Your task to perform on an android device: Add "bose soundsport free" to the cart on target.com Image 0: 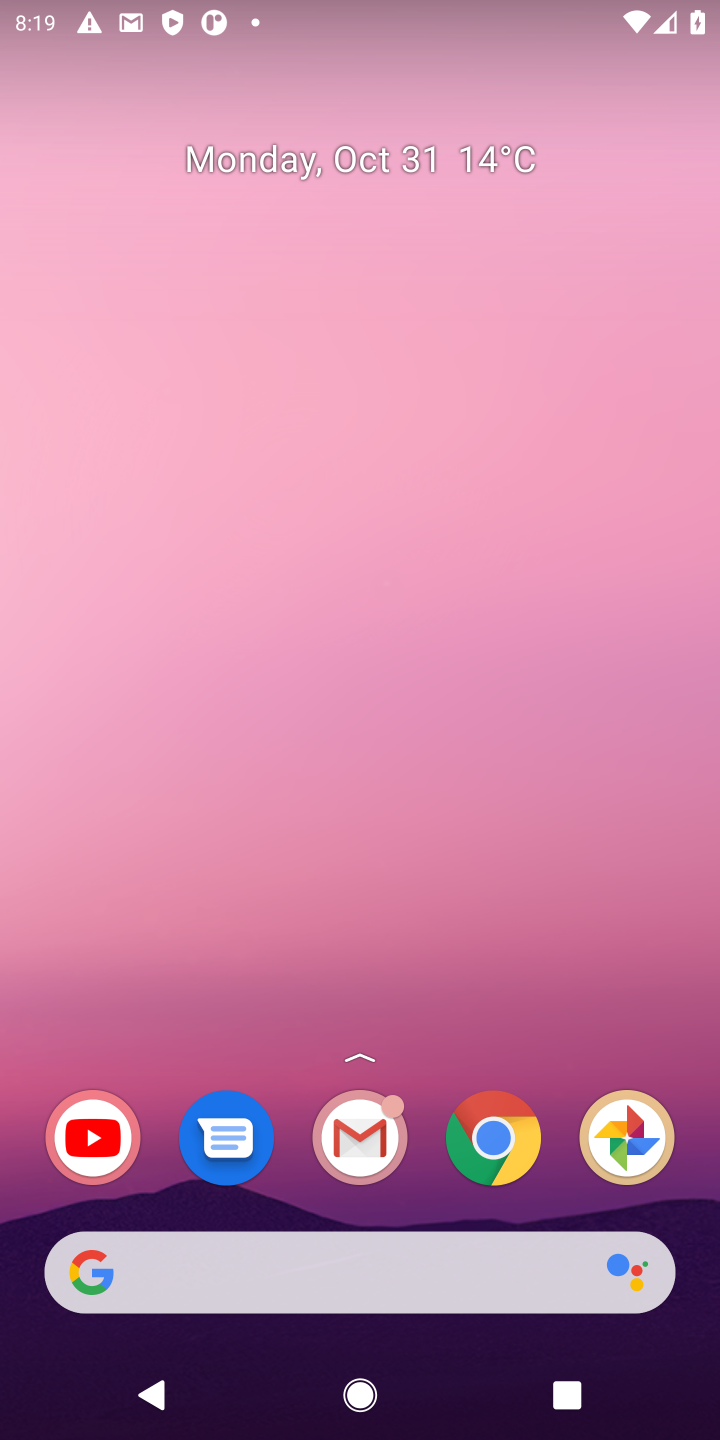
Step 0: click (508, 1166)
Your task to perform on an android device: Add "bose soundsport free" to the cart on target.com Image 1: 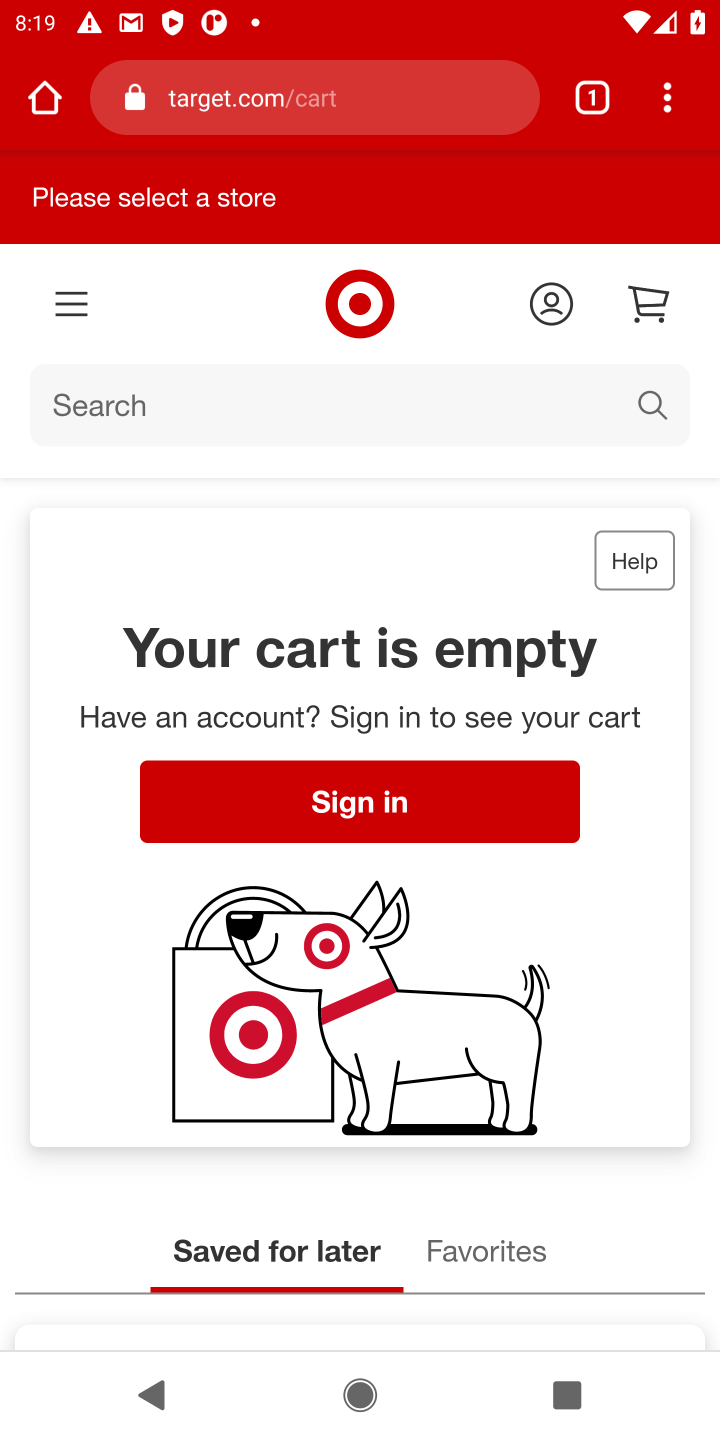
Step 1: click (205, 115)
Your task to perform on an android device: Add "bose soundsport free" to the cart on target.com Image 2: 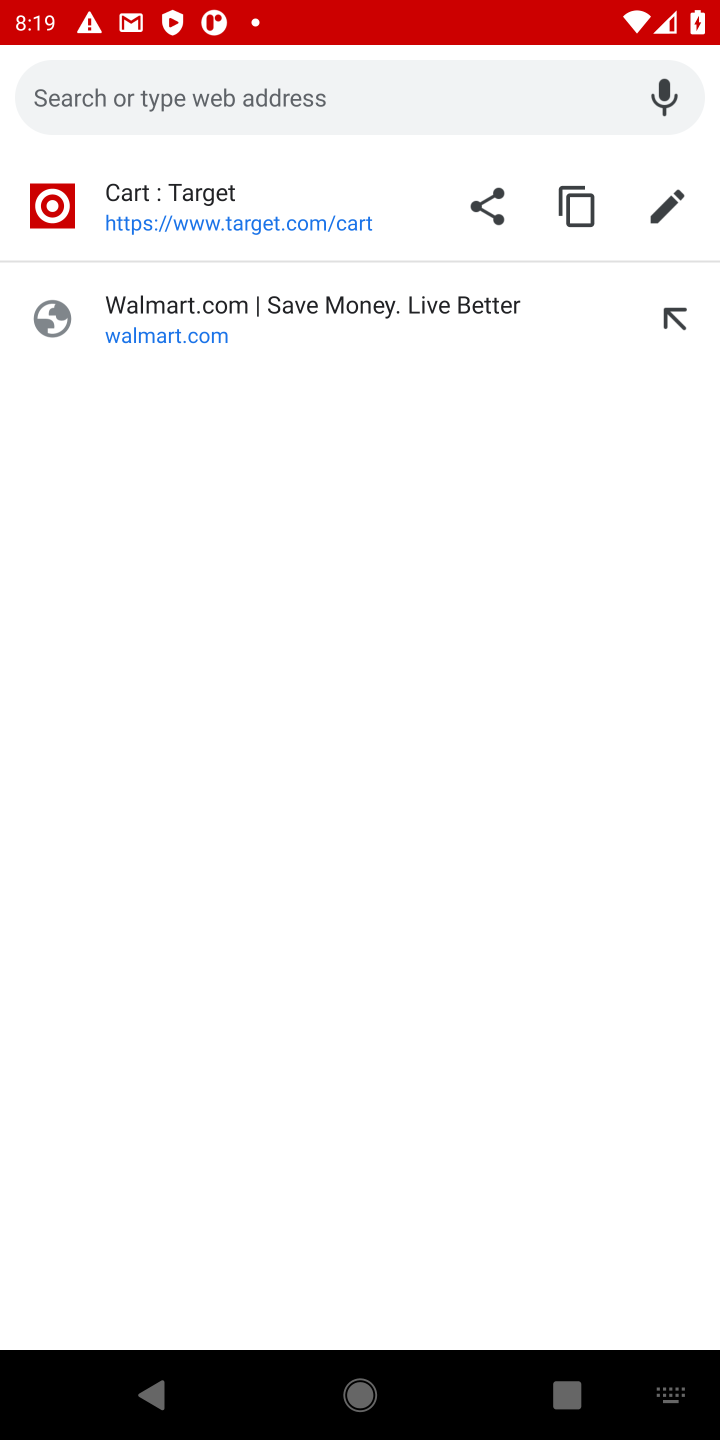
Step 2: type "target.com"
Your task to perform on an android device: Add "bose soundsport free" to the cart on target.com Image 3: 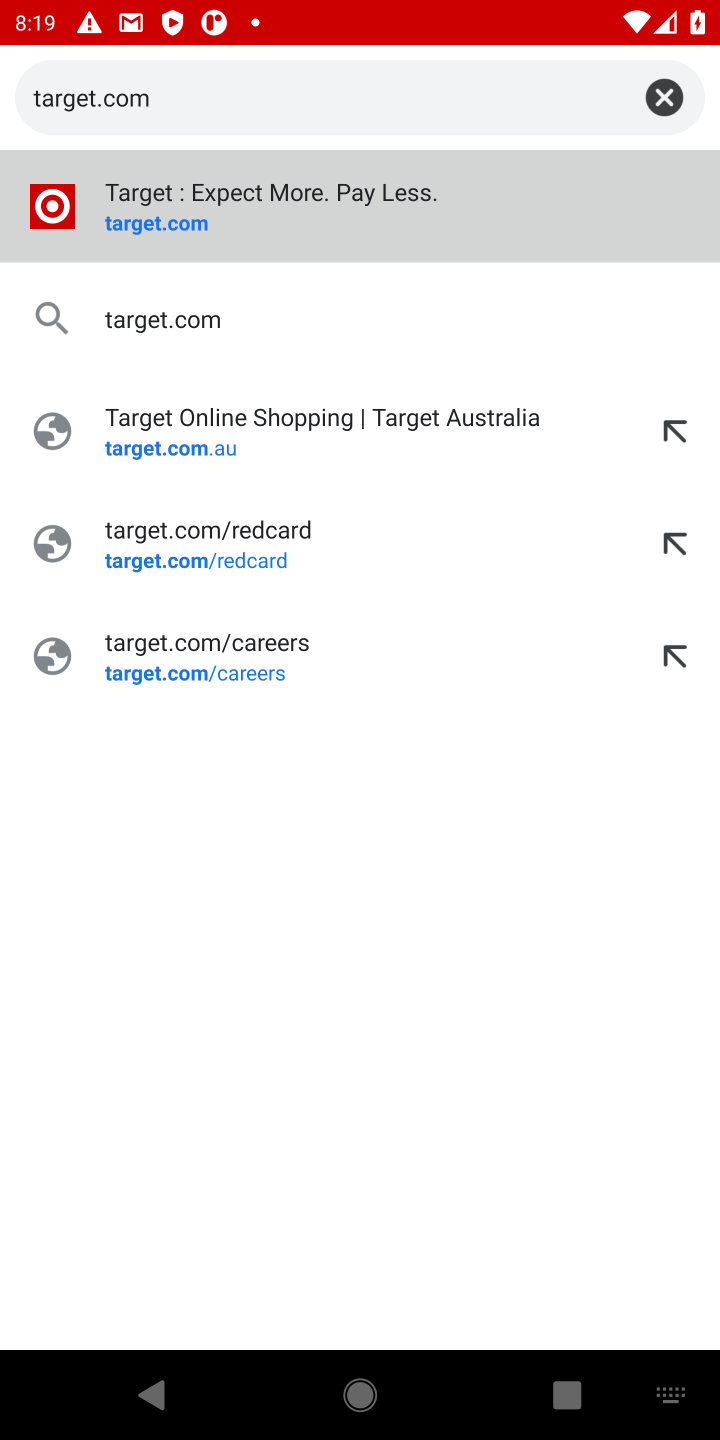
Step 3: click (176, 221)
Your task to perform on an android device: Add "bose soundsport free" to the cart on target.com Image 4: 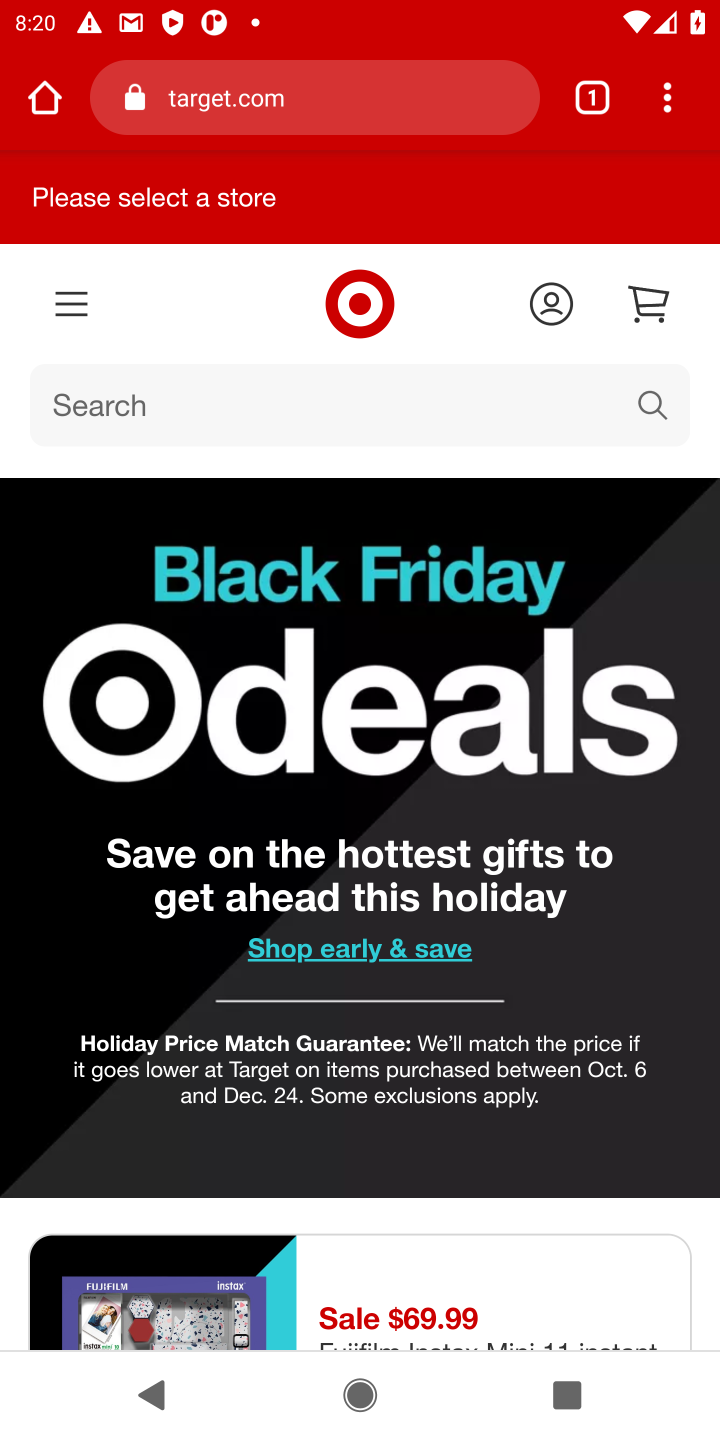
Step 4: click (644, 403)
Your task to perform on an android device: Add "bose soundsport free" to the cart on target.com Image 5: 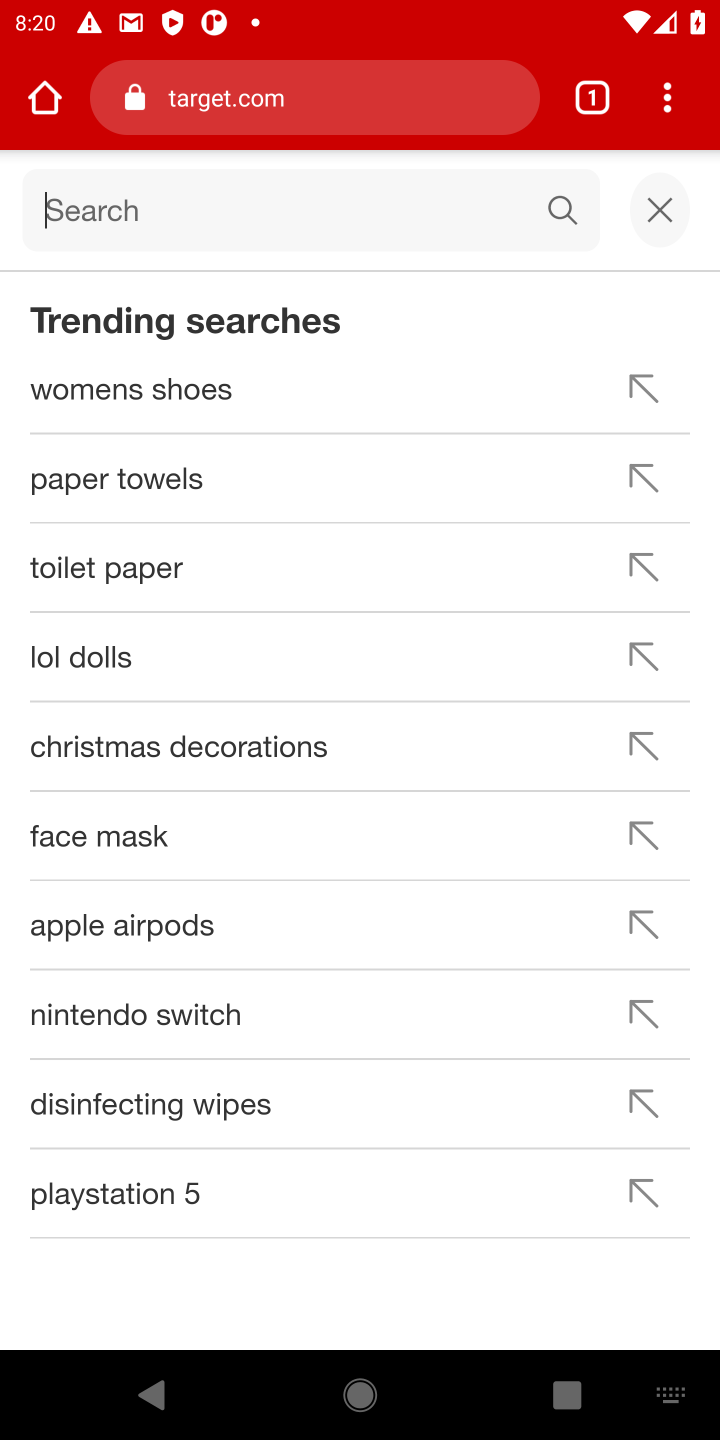
Step 5: type "bose soundsport free"
Your task to perform on an android device: Add "bose soundsport free" to the cart on target.com Image 6: 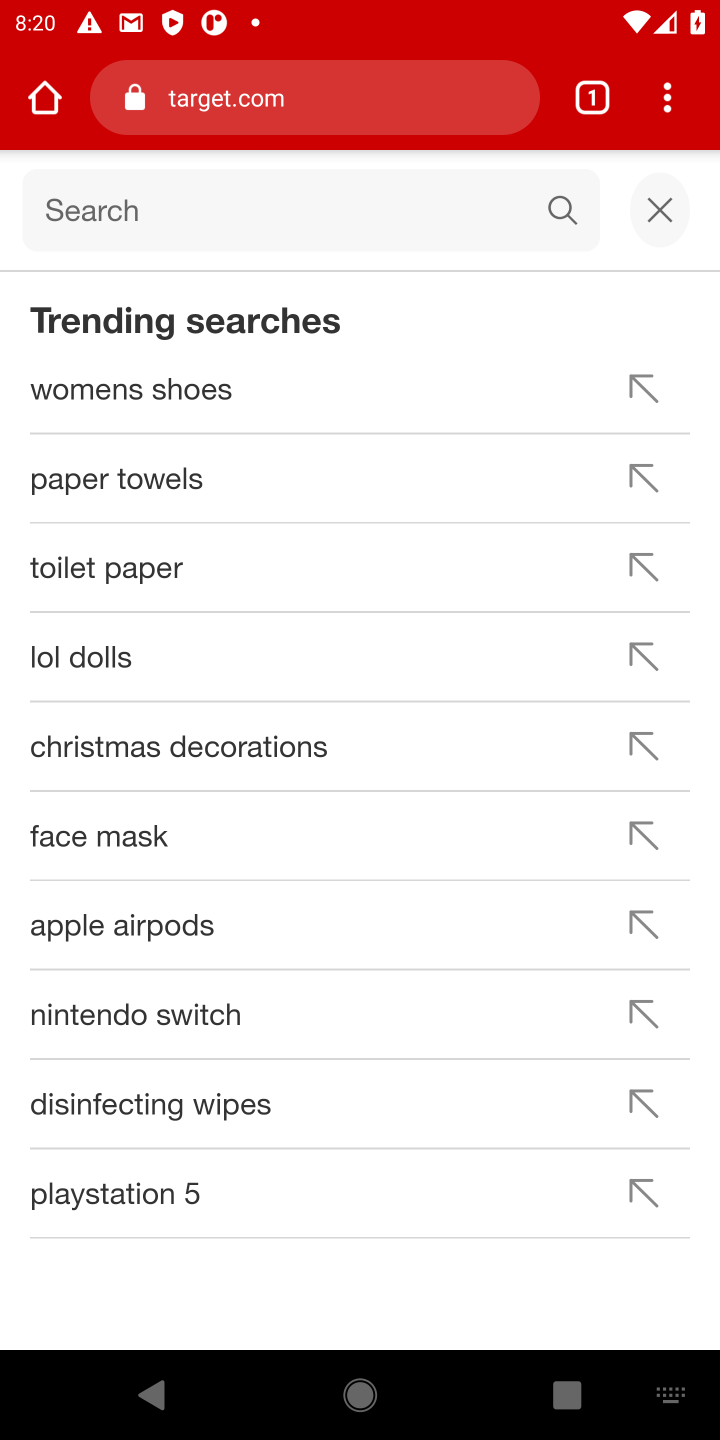
Step 6: type ""
Your task to perform on an android device: Add "bose soundsport free" to the cart on target.com Image 7: 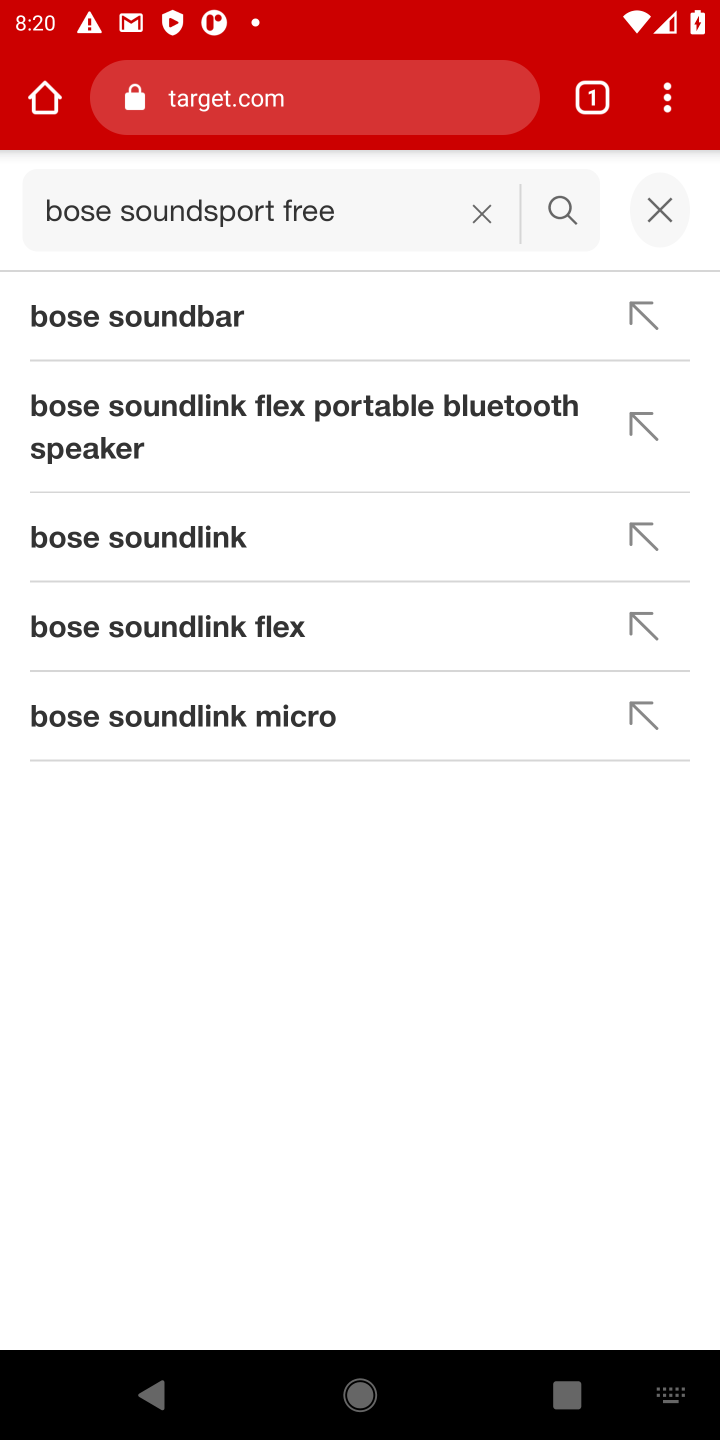
Step 7: click (171, 313)
Your task to perform on an android device: Add "bose soundsport free" to the cart on target.com Image 8: 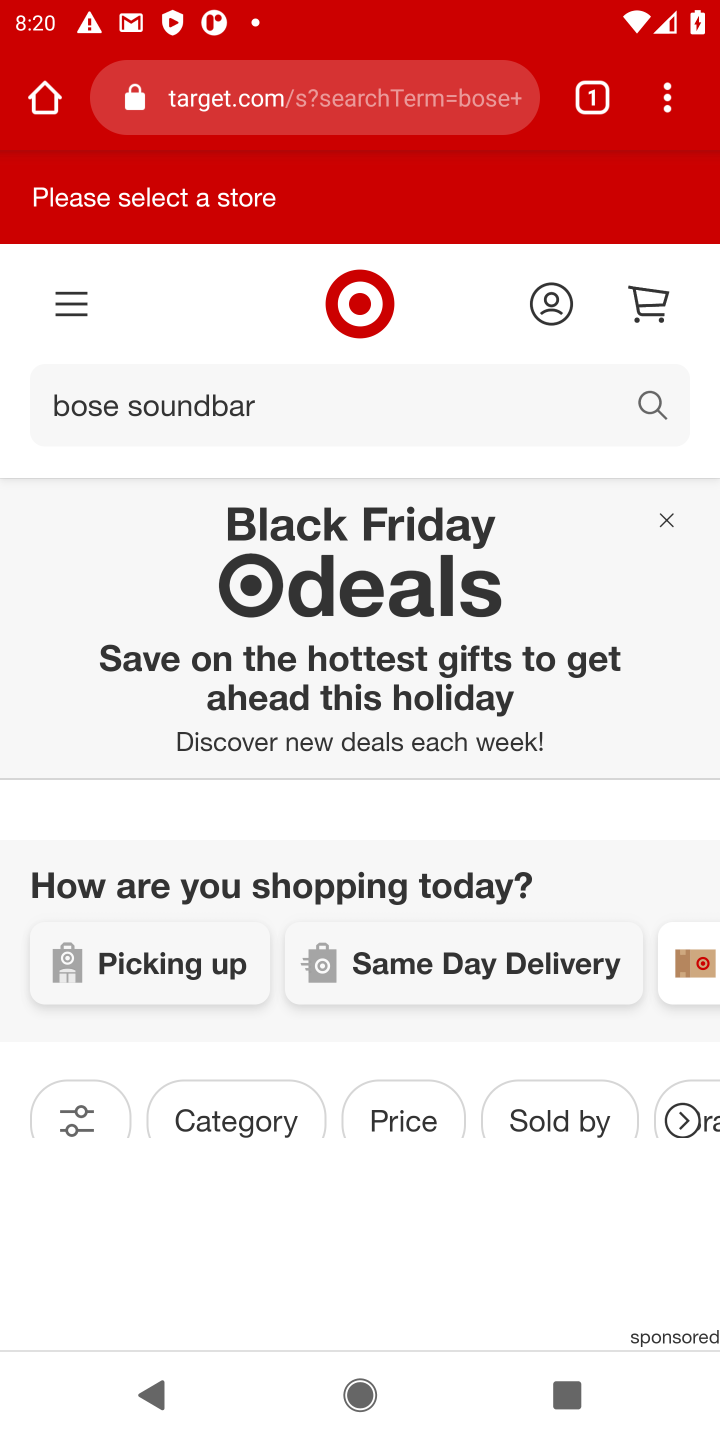
Step 8: click (646, 399)
Your task to perform on an android device: Add "bose soundsport free" to the cart on target.com Image 9: 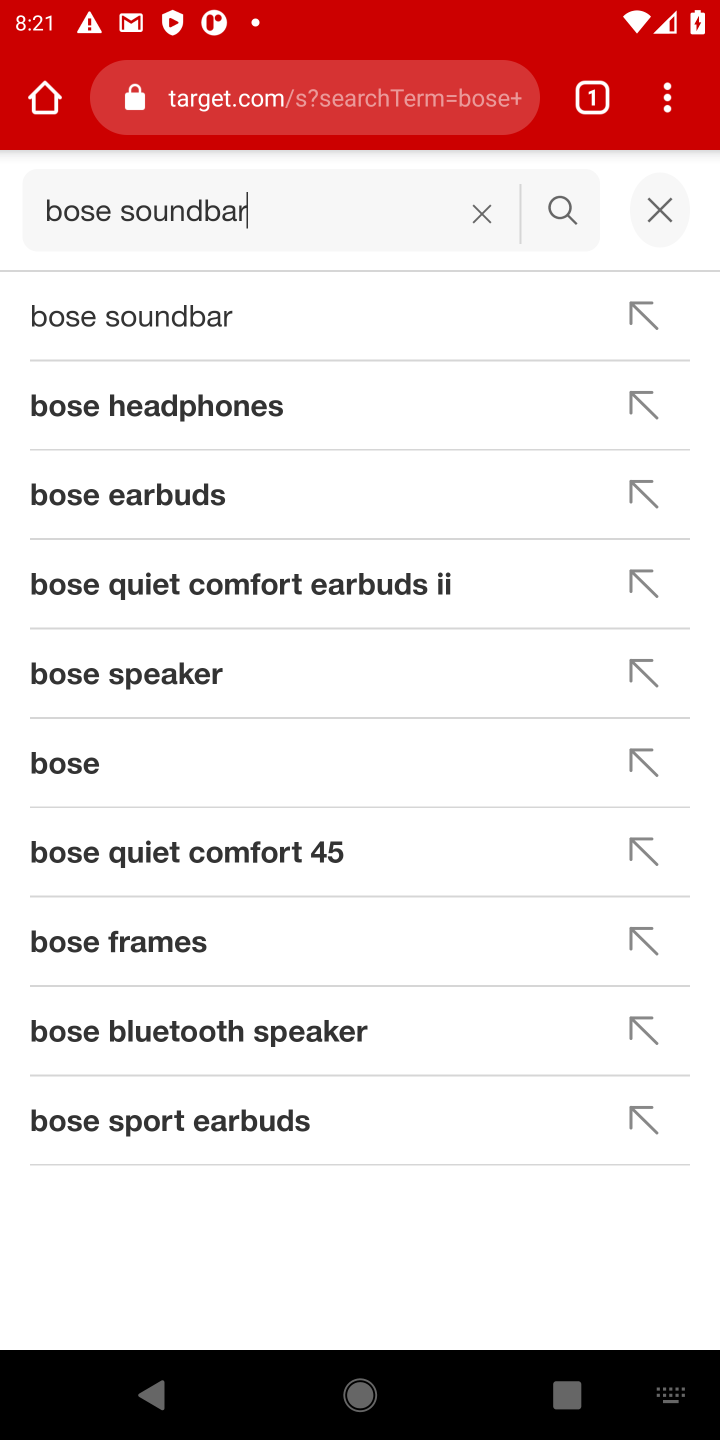
Step 9: click (487, 213)
Your task to perform on an android device: Add "bose soundsport free" to the cart on target.com Image 10: 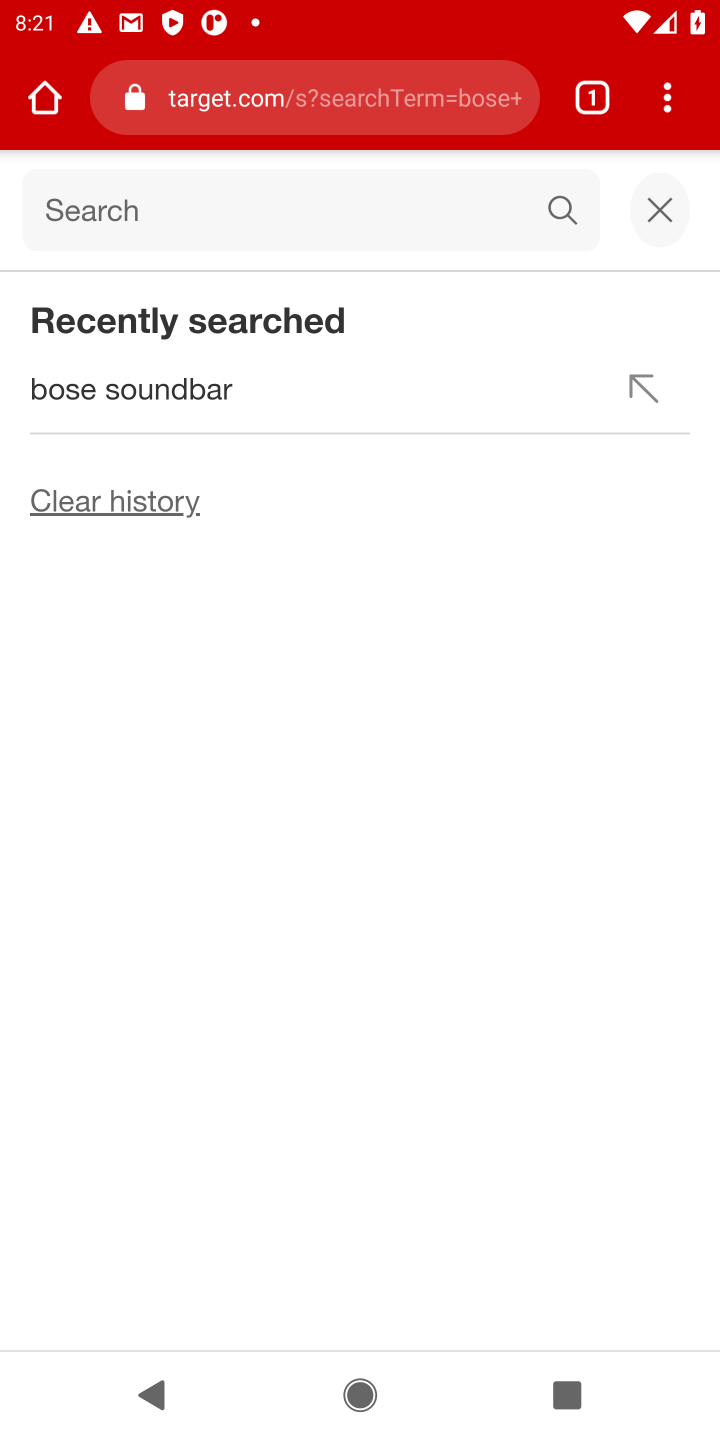
Step 10: click (146, 203)
Your task to perform on an android device: Add "bose soundsport free" to the cart on target.com Image 11: 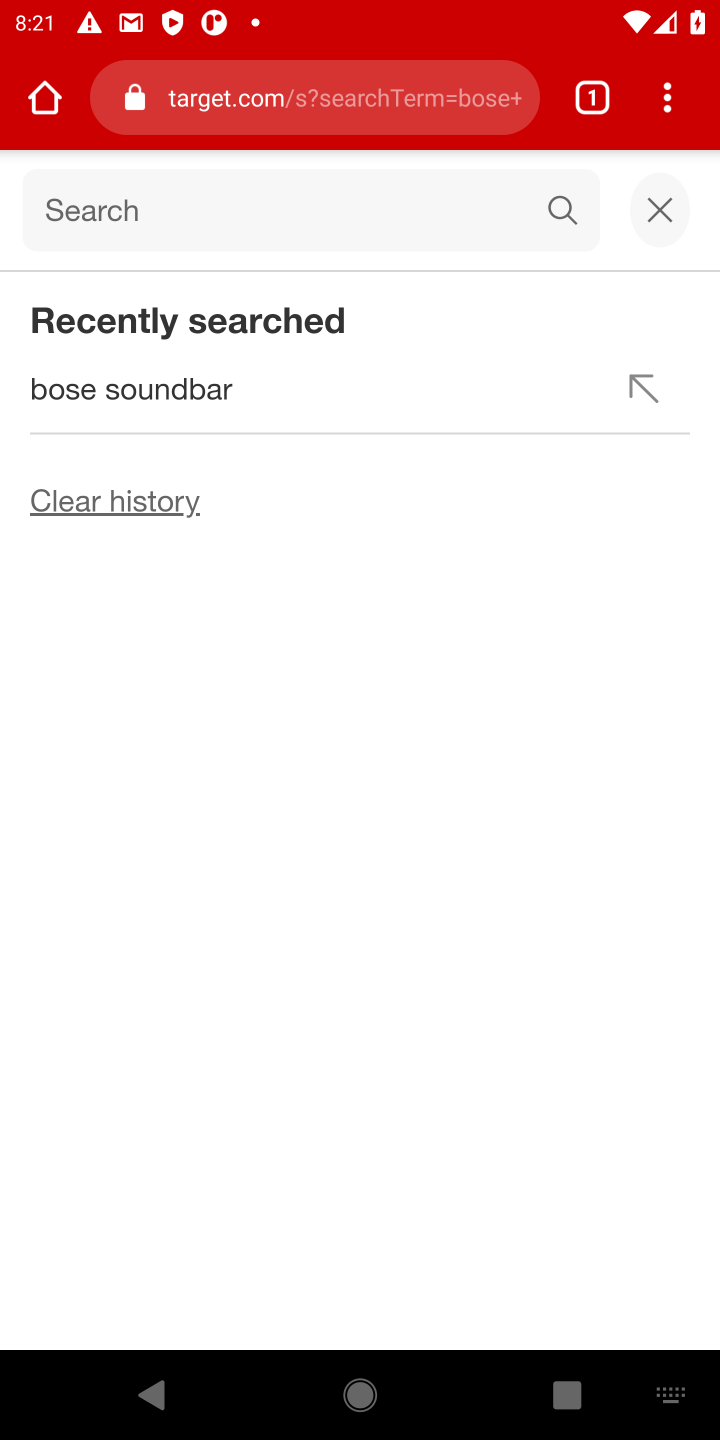
Step 11: type "bose soundsport free"
Your task to perform on an android device: Add "bose soundsport free" to the cart on target.com Image 12: 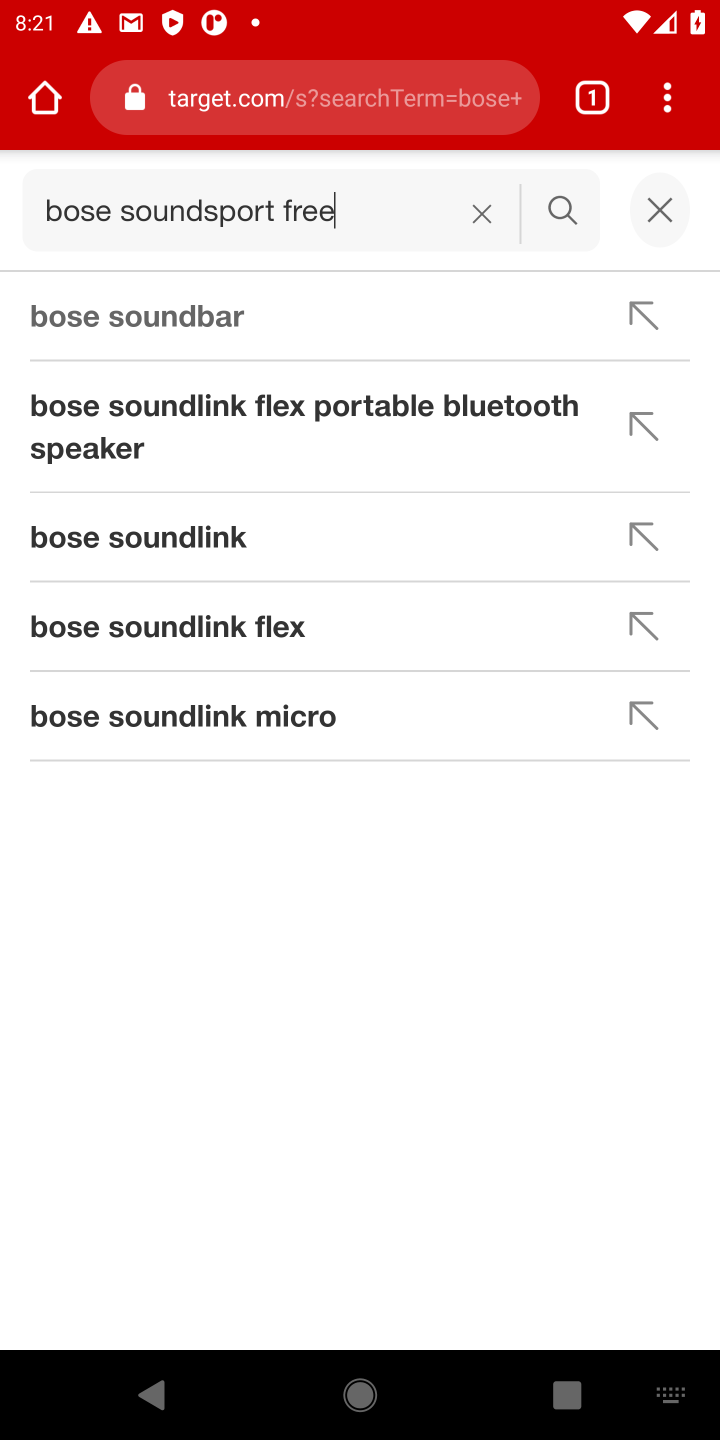
Step 12: type ""
Your task to perform on an android device: Add "bose soundsport free" to the cart on target.com Image 13: 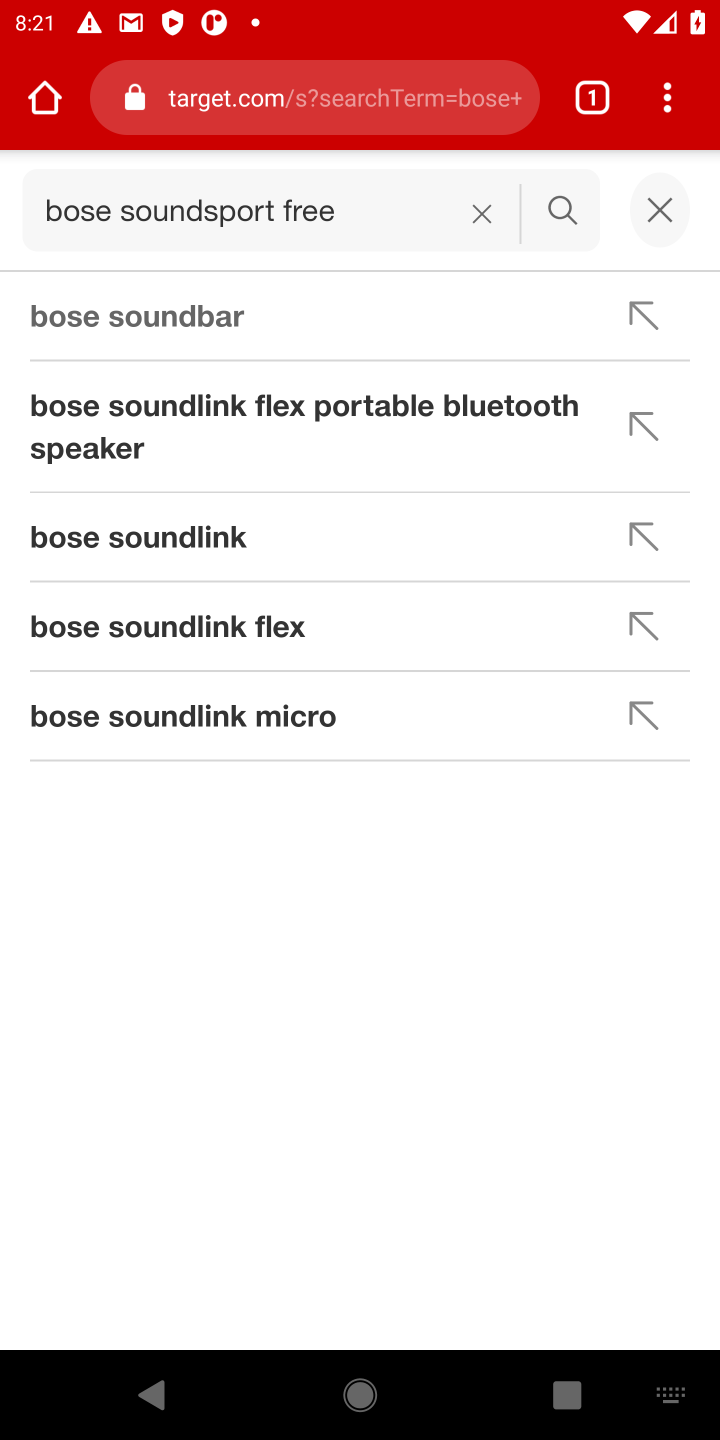
Step 13: click (127, 430)
Your task to perform on an android device: Add "bose soundsport free" to the cart on target.com Image 14: 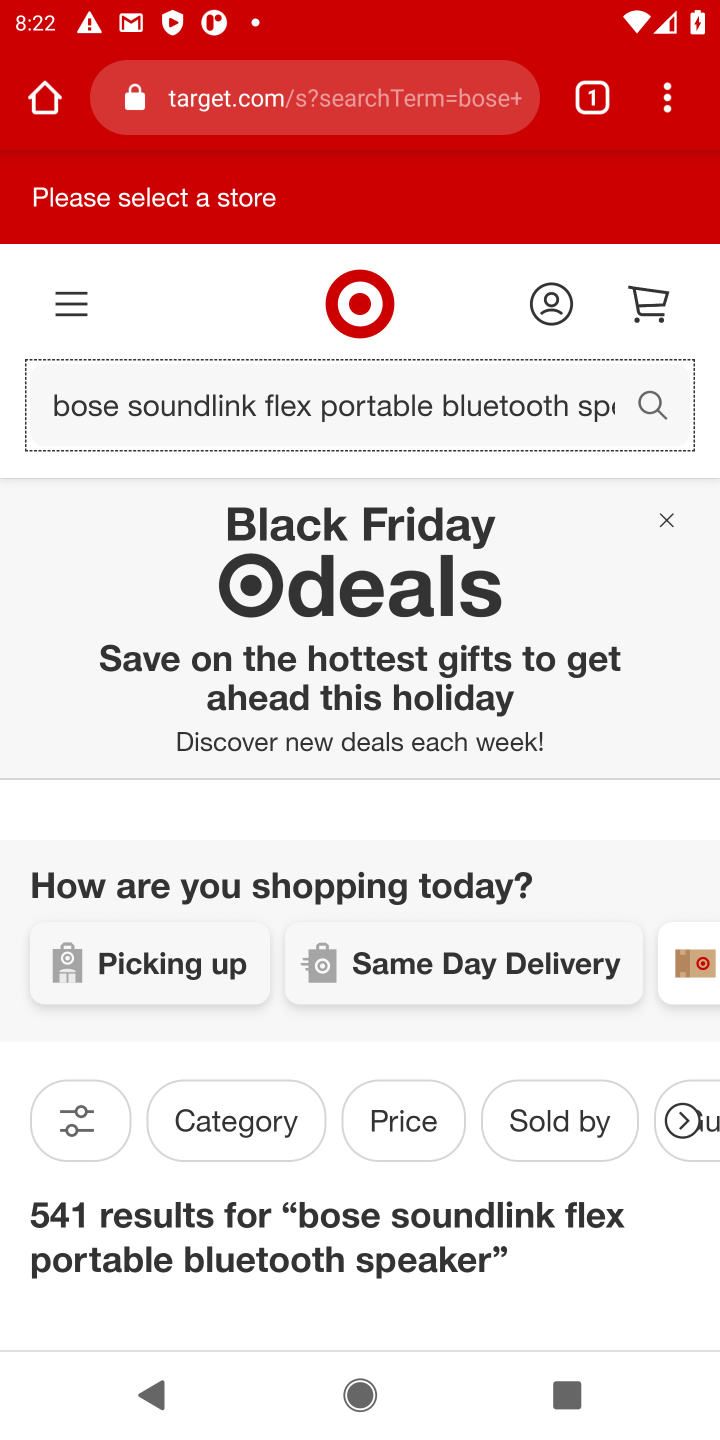
Step 14: drag from (189, 952) to (277, 360)
Your task to perform on an android device: Add "bose soundsport free" to the cart on target.com Image 15: 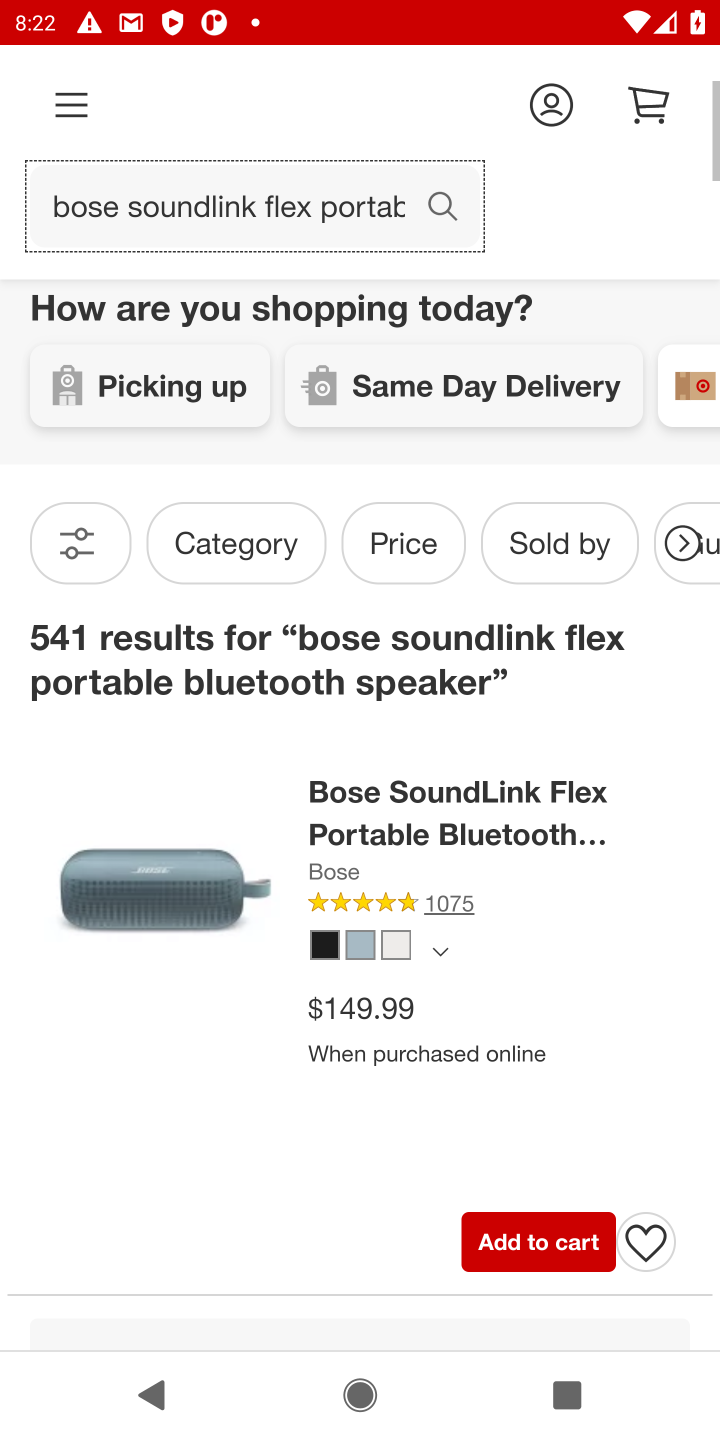
Step 15: drag from (167, 1158) to (206, 788)
Your task to perform on an android device: Add "bose soundsport free" to the cart on target.com Image 16: 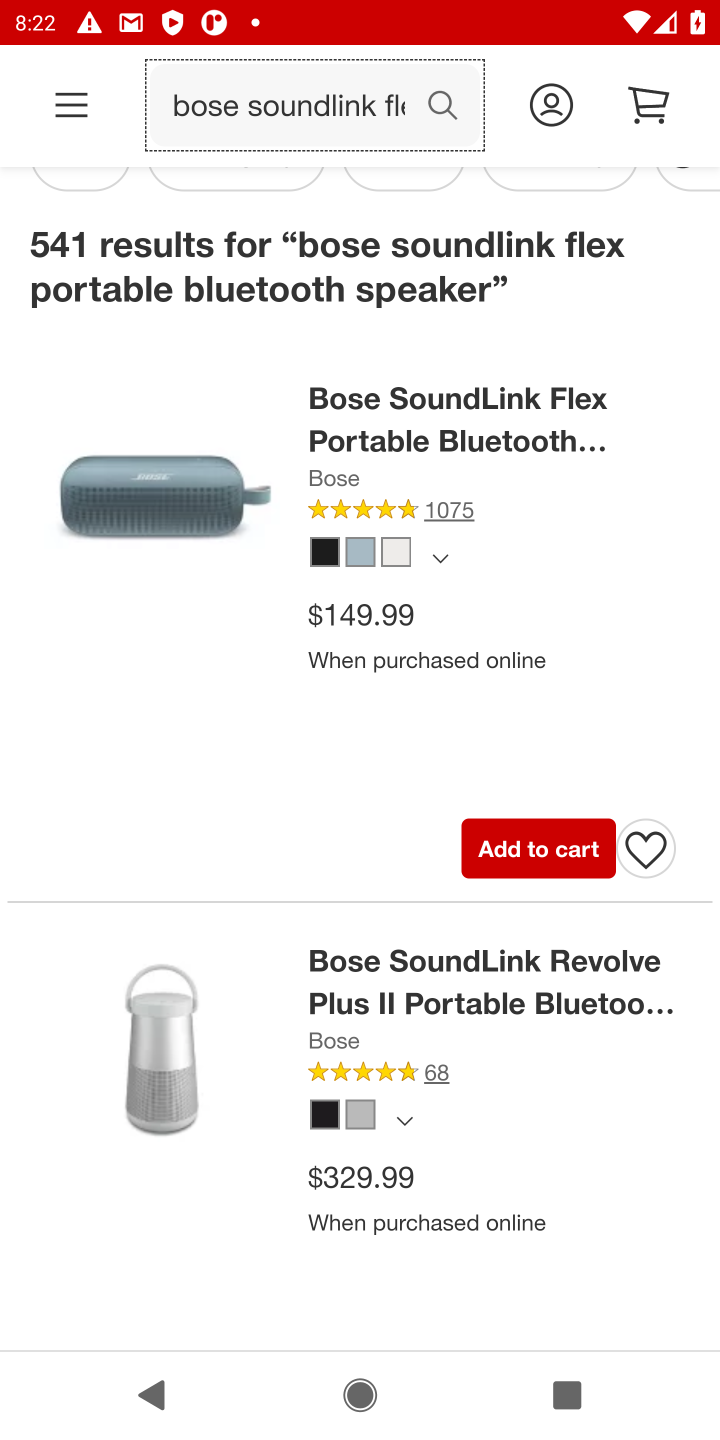
Step 16: click (483, 394)
Your task to perform on an android device: Add "bose soundsport free" to the cart on target.com Image 17: 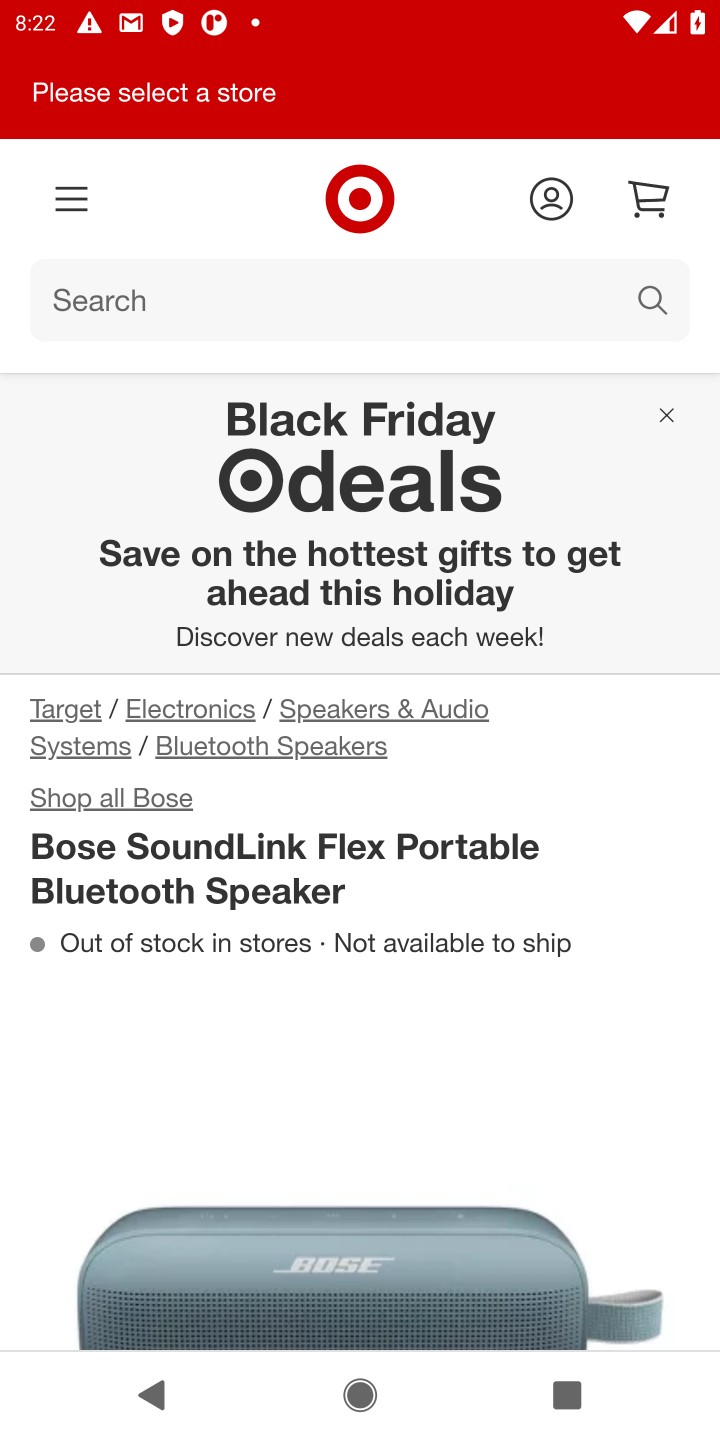
Step 17: drag from (342, 975) to (396, 655)
Your task to perform on an android device: Add "bose soundsport free" to the cart on target.com Image 18: 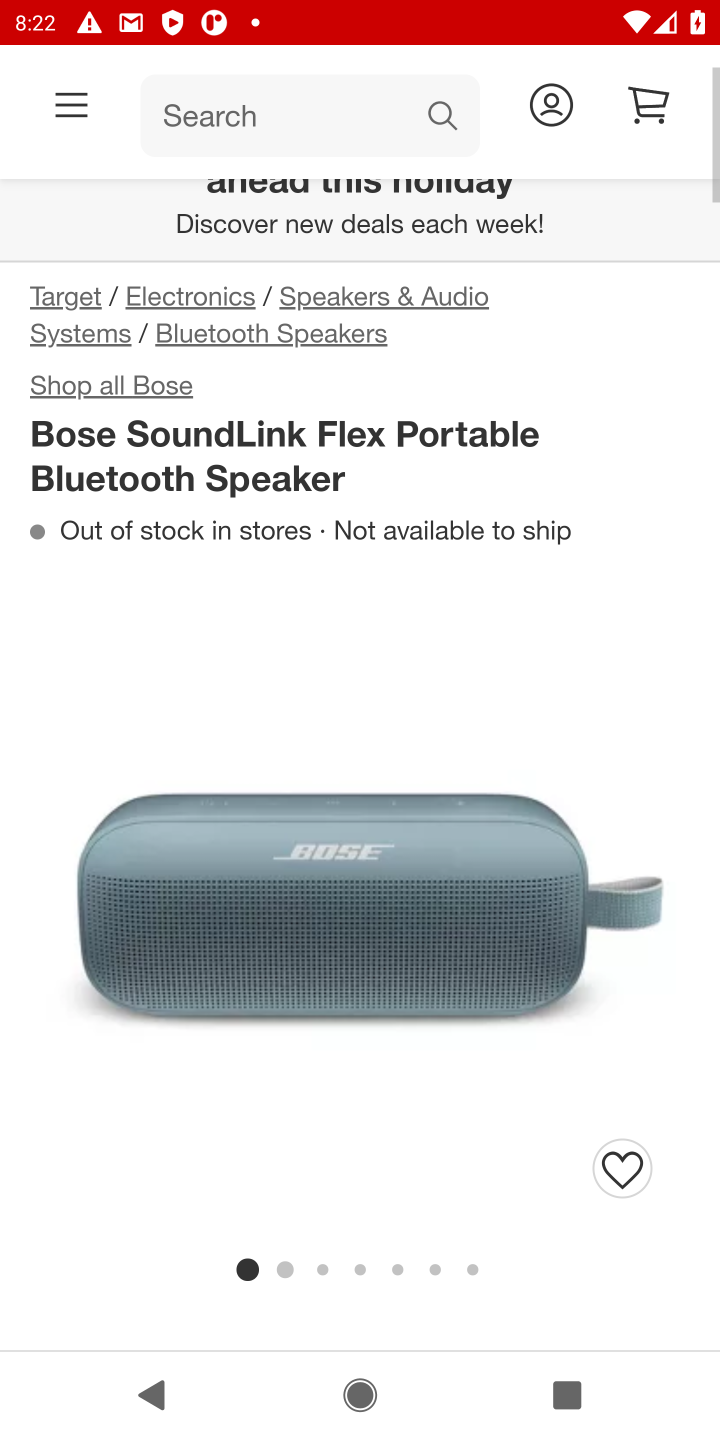
Step 18: drag from (406, 930) to (403, 514)
Your task to perform on an android device: Add "bose soundsport free" to the cart on target.com Image 19: 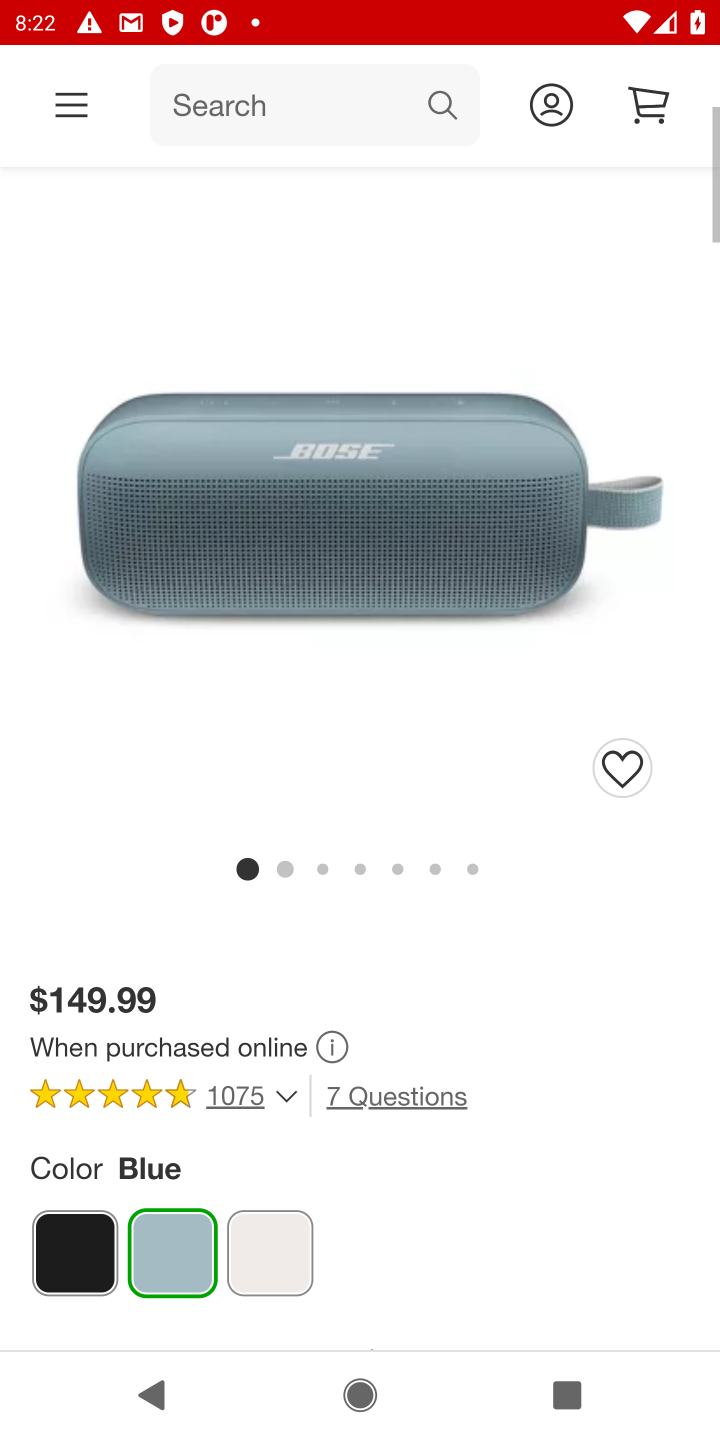
Step 19: drag from (322, 1077) to (343, 628)
Your task to perform on an android device: Add "bose soundsport free" to the cart on target.com Image 20: 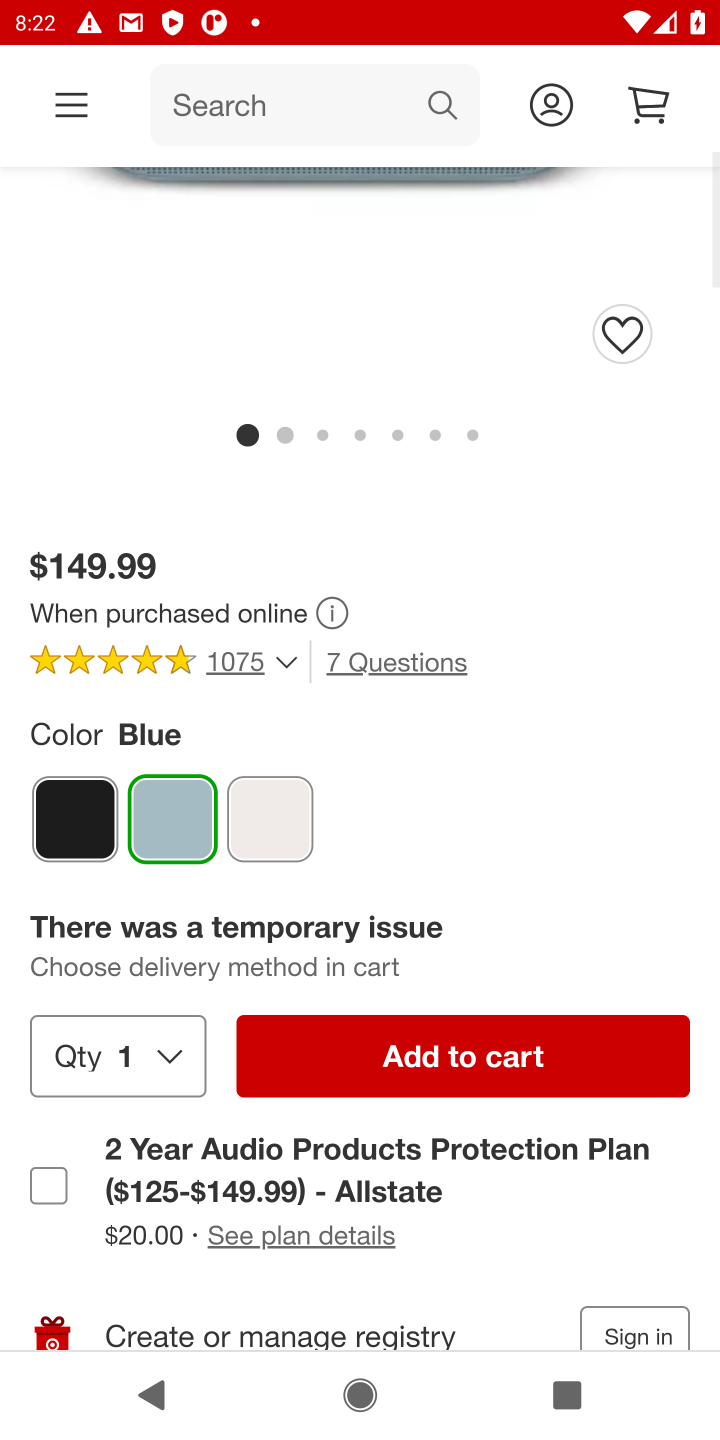
Step 20: drag from (312, 1108) to (330, 918)
Your task to perform on an android device: Add "bose soundsport free" to the cart on target.com Image 21: 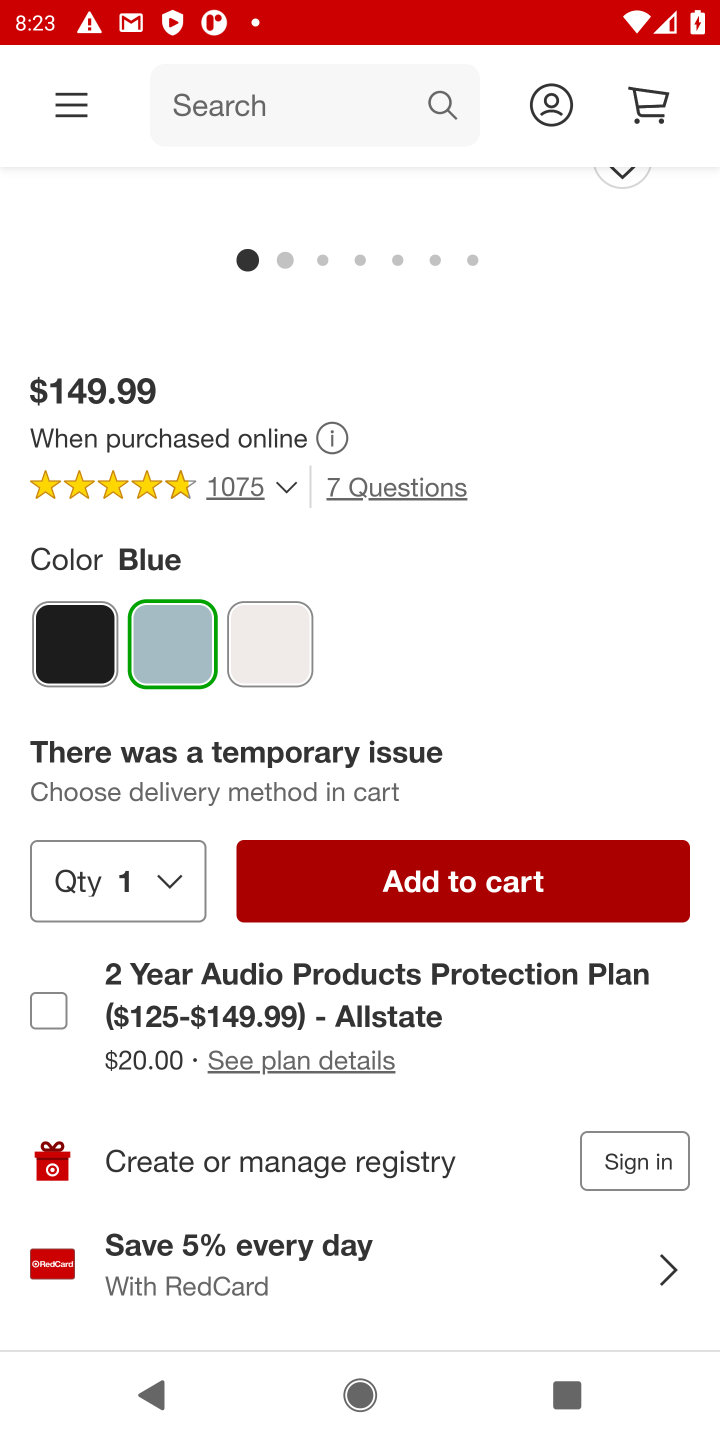
Step 21: click (640, 980)
Your task to perform on an android device: Add "bose soundsport free" to the cart on target.com Image 22: 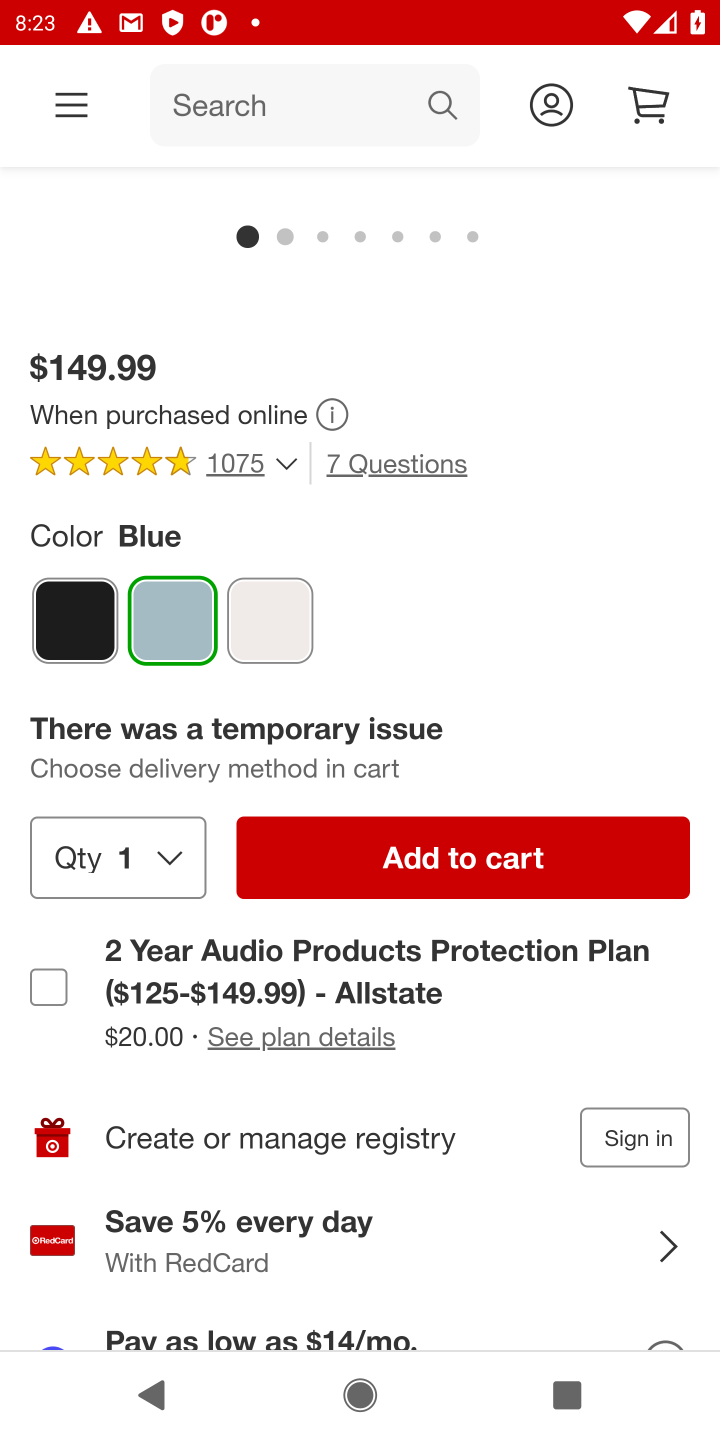
Step 22: click (450, 877)
Your task to perform on an android device: Add "bose soundsport free" to the cart on target.com Image 23: 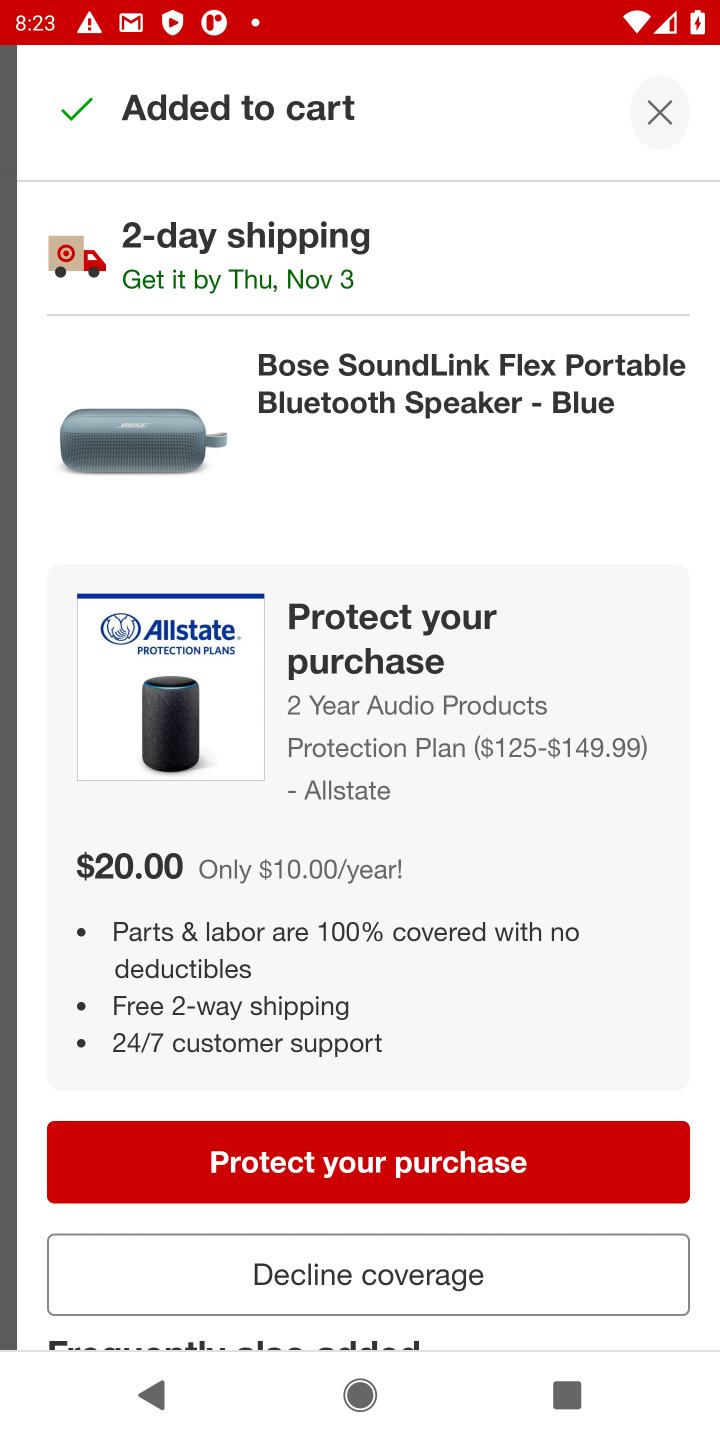
Step 23: task complete